Your task to perform on an android device: add a contact in the contacts app Image 0: 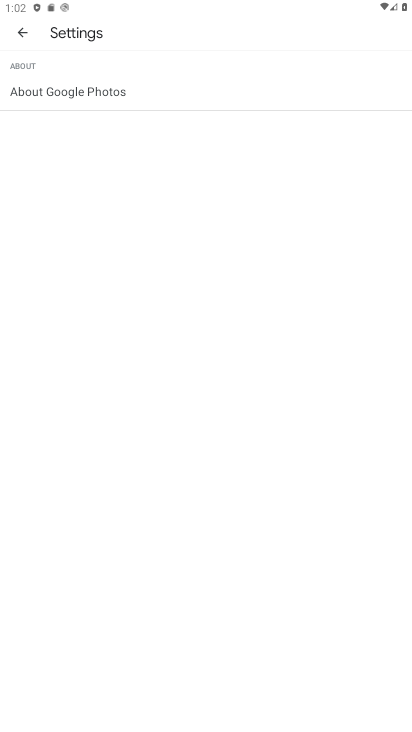
Step 0: task complete